Your task to perform on an android device: Go to Wikipedia Image 0: 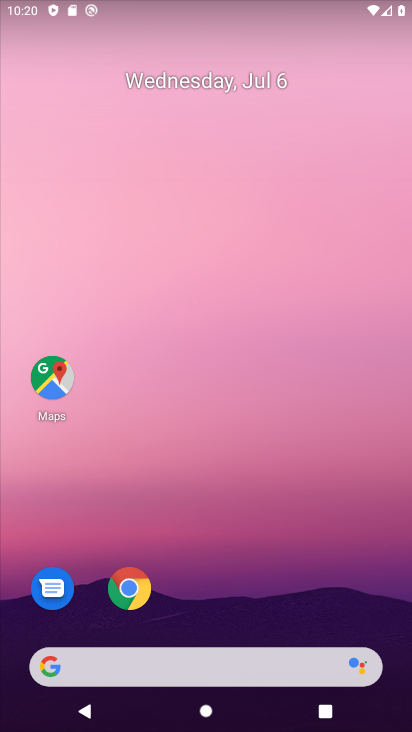
Step 0: click (134, 590)
Your task to perform on an android device: Go to Wikipedia Image 1: 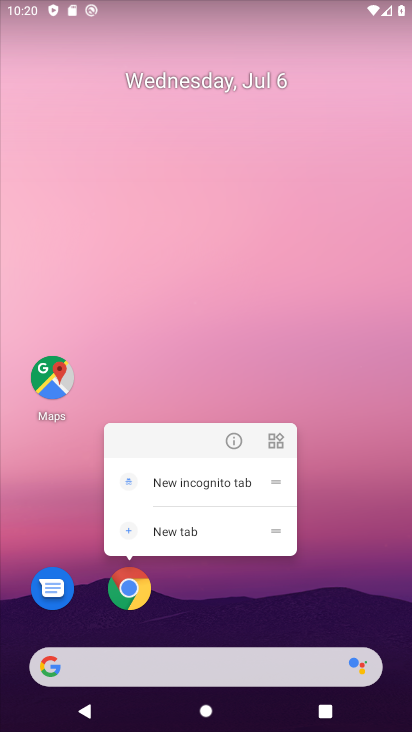
Step 1: click (136, 591)
Your task to perform on an android device: Go to Wikipedia Image 2: 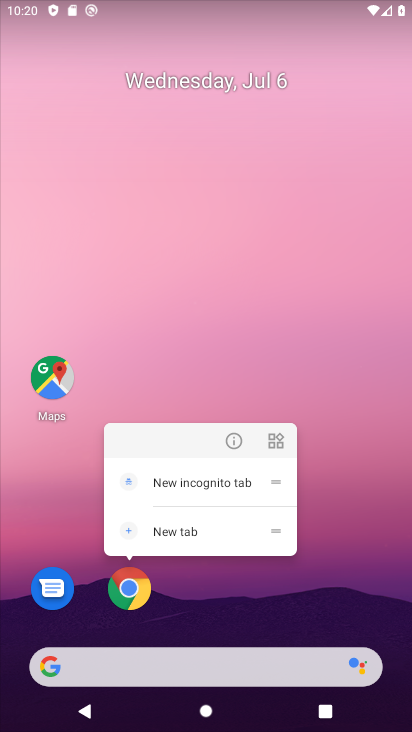
Step 2: click (126, 595)
Your task to perform on an android device: Go to Wikipedia Image 3: 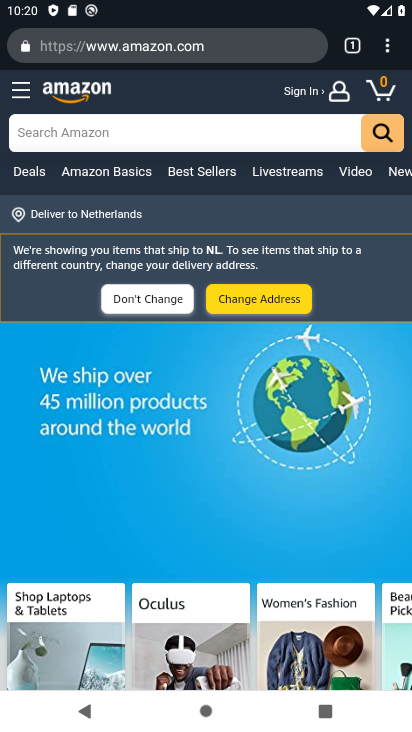
Step 3: click (388, 62)
Your task to perform on an android device: Go to Wikipedia Image 4: 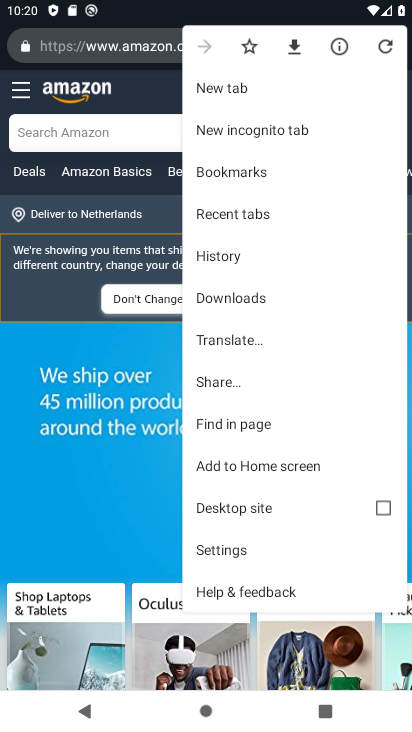
Step 4: click (251, 89)
Your task to perform on an android device: Go to Wikipedia Image 5: 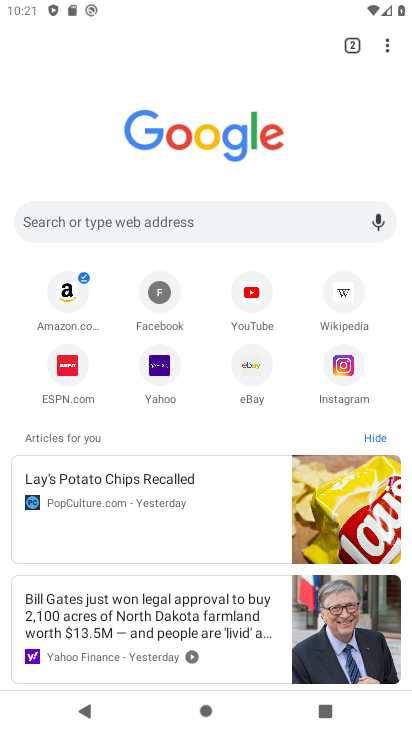
Step 5: click (342, 297)
Your task to perform on an android device: Go to Wikipedia Image 6: 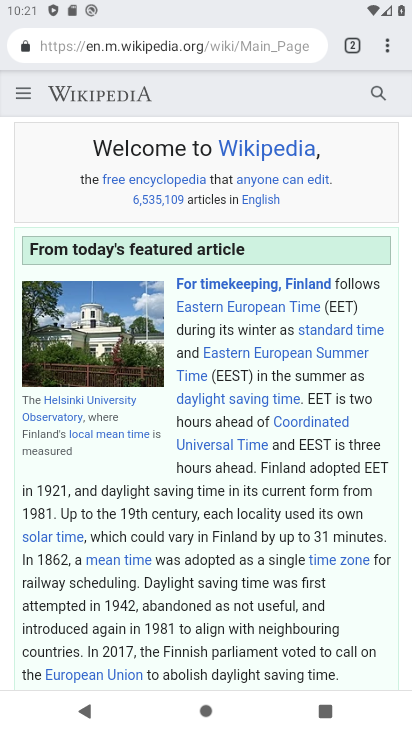
Step 6: task complete